Your task to perform on an android device: Go to Android settings Image 0: 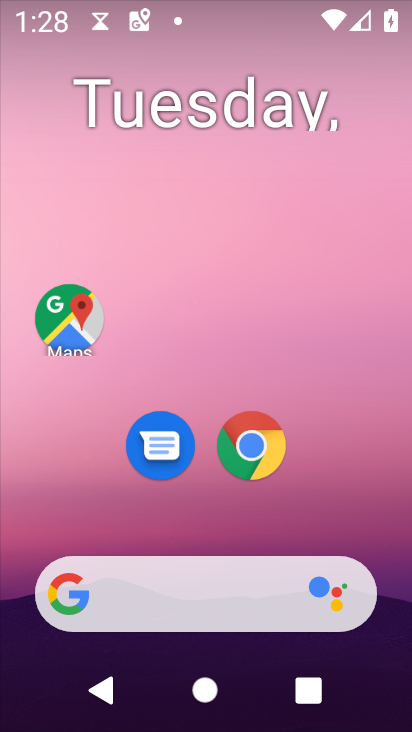
Step 0: drag from (295, 596) to (277, 9)
Your task to perform on an android device: Go to Android settings Image 1: 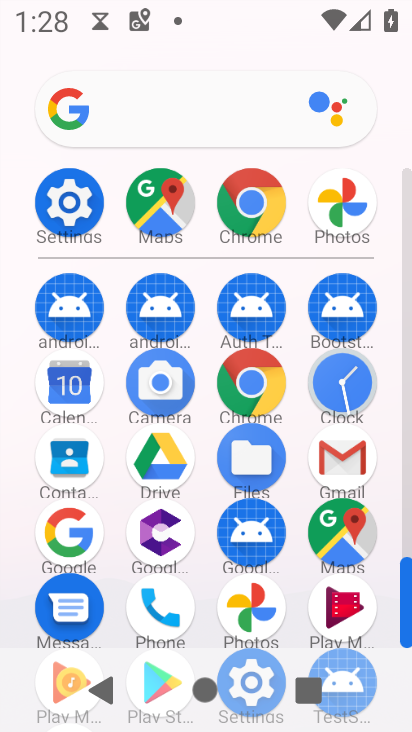
Step 1: drag from (280, 642) to (286, 265)
Your task to perform on an android device: Go to Android settings Image 2: 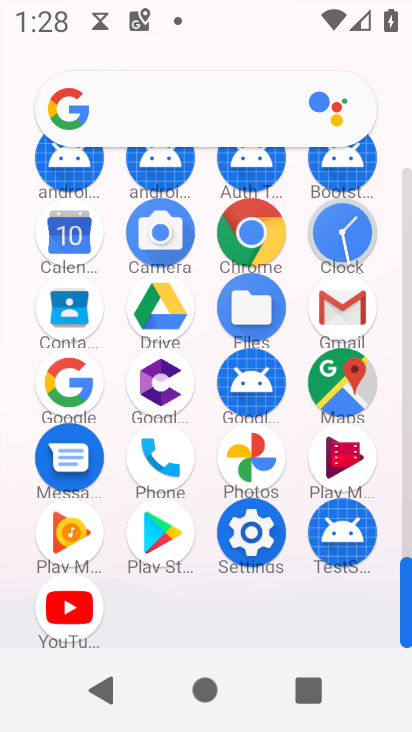
Step 2: click (255, 530)
Your task to perform on an android device: Go to Android settings Image 3: 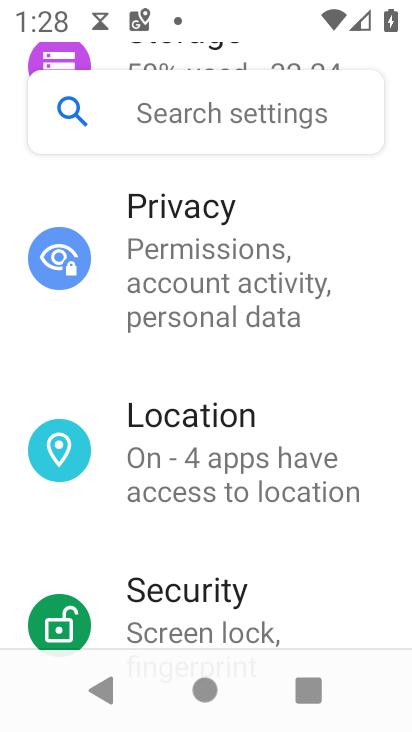
Step 3: drag from (254, 617) to (247, 68)
Your task to perform on an android device: Go to Android settings Image 4: 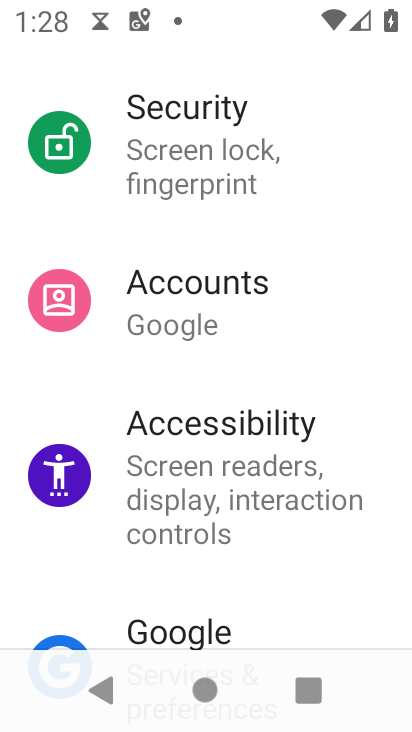
Step 4: drag from (290, 605) to (307, 231)
Your task to perform on an android device: Go to Android settings Image 5: 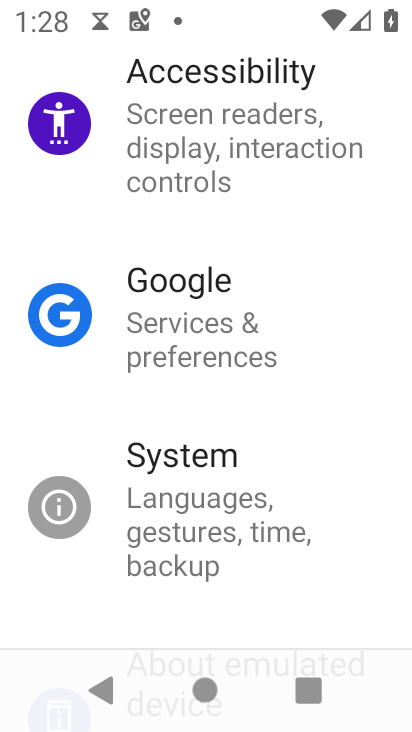
Step 5: drag from (300, 639) to (320, 308)
Your task to perform on an android device: Go to Android settings Image 6: 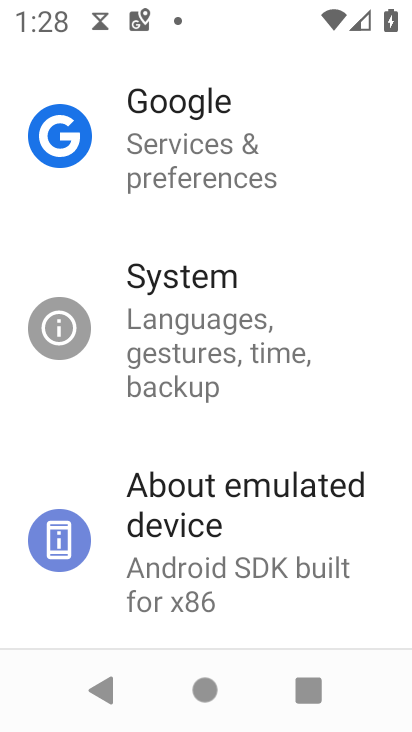
Step 6: click (299, 538)
Your task to perform on an android device: Go to Android settings Image 7: 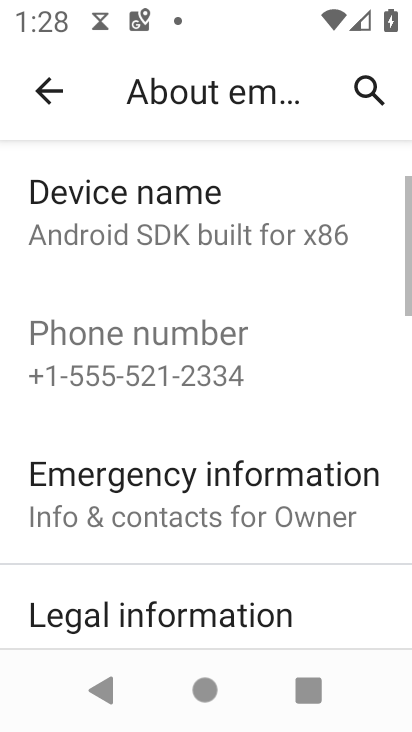
Step 7: task complete